Your task to perform on an android device: What's on my calendar today? Image 0: 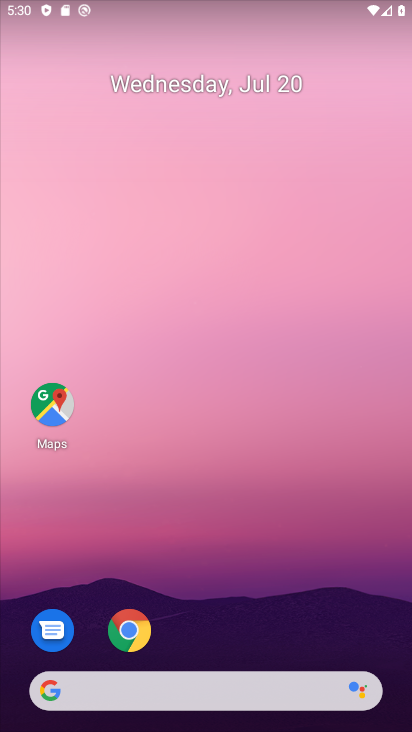
Step 0: drag from (182, 688) to (208, 3)
Your task to perform on an android device: What's on my calendar today? Image 1: 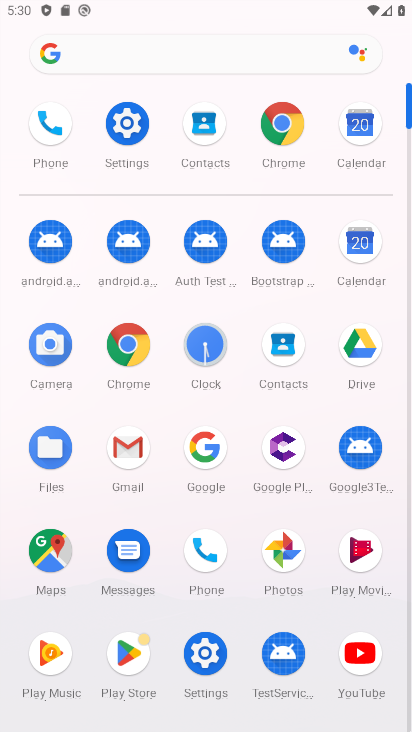
Step 1: click (363, 238)
Your task to perform on an android device: What's on my calendar today? Image 2: 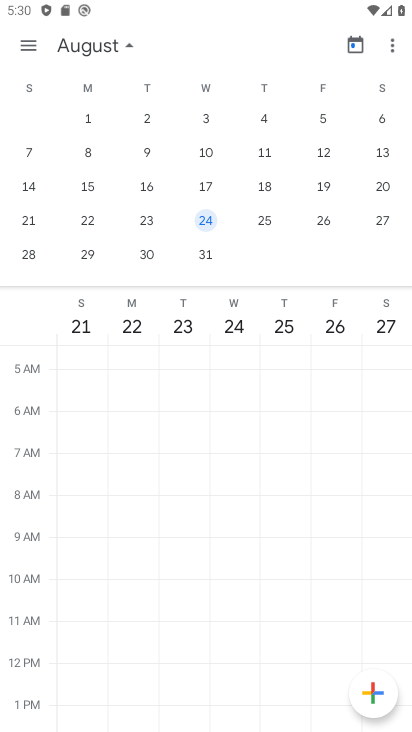
Step 2: drag from (31, 192) to (405, 247)
Your task to perform on an android device: What's on my calendar today? Image 3: 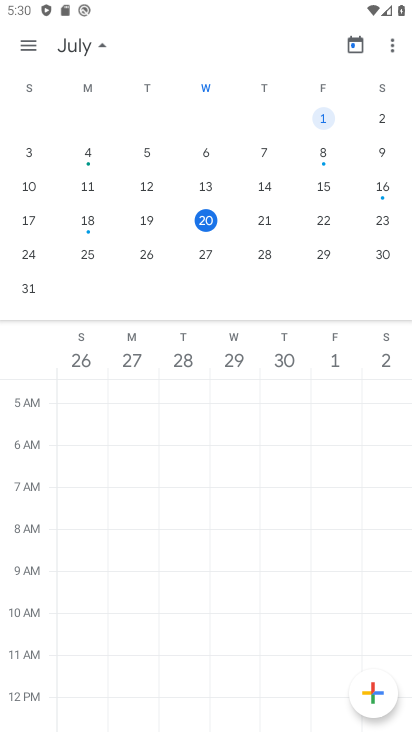
Step 3: click (208, 221)
Your task to perform on an android device: What's on my calendar today? Image 4: 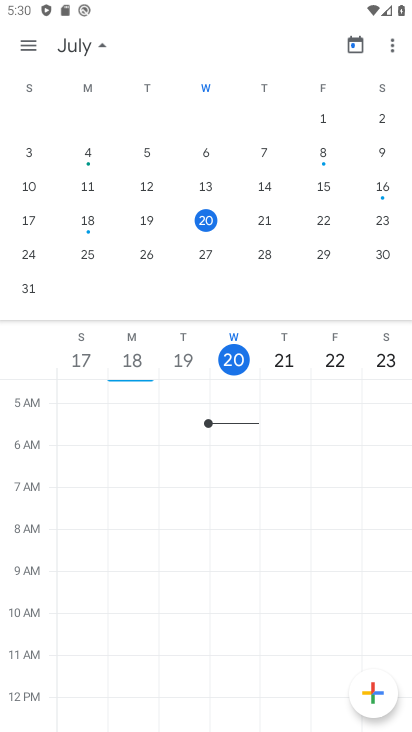
Step 4: task complete